Your task to perform on an android device: change text size in settings app Image 0: 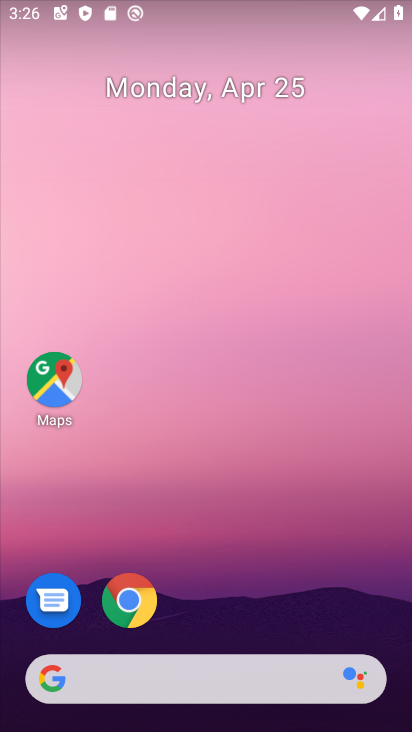
Step 0: drag from (309, 500) to (246, 7)
Your task to perform on an android device: change text size in settings app Image 1: 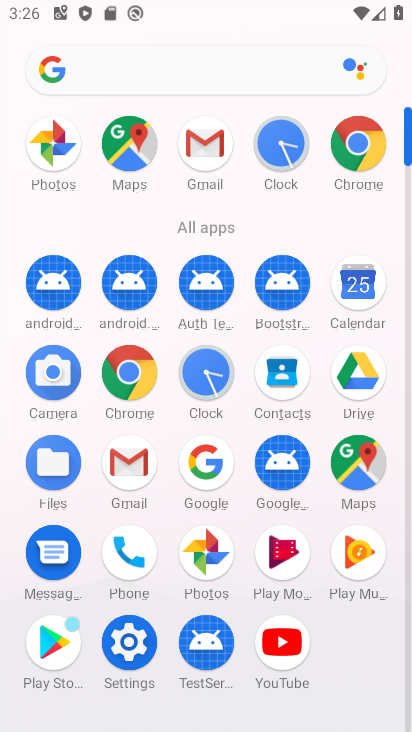
Step 1: click (129, 639)
Your task to perform on an android device: change text size in settings app Image 2: 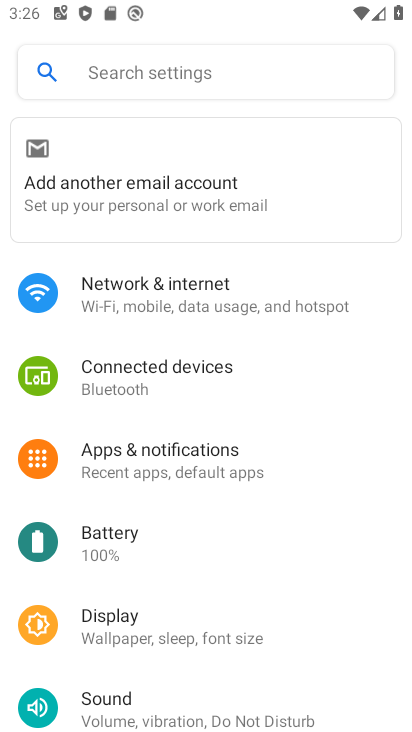
Step 2: drag from (257, 601) to (283, 269)
Your task to perform on an android device: change text size in settings app Image 3: 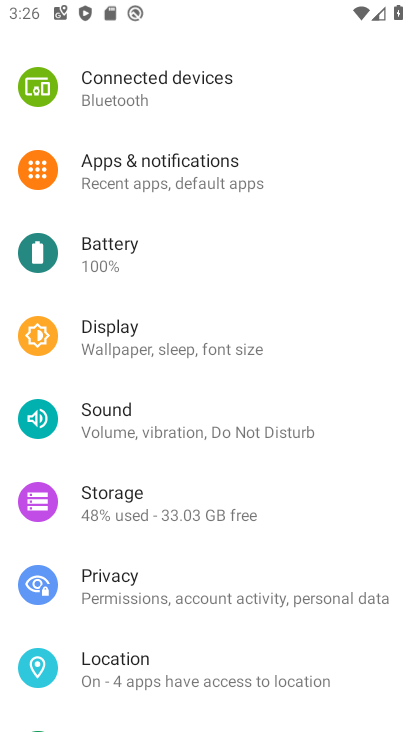
Step 3: click (182, 348)
Your task to perform on an android device: change text size in settings app Image 4: 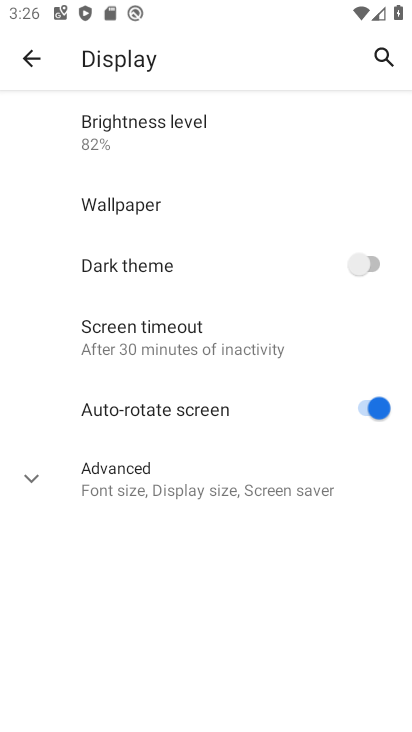
Step 4: click (143, 466)
Your task to perform on an android device: change text size in settings app Image 5: 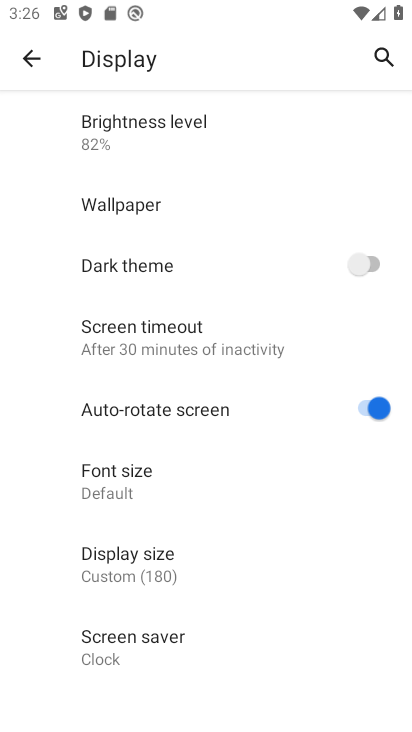
Step 5: drag from (181, 583) to (235, 158)
Your task to perform on an android device: change text size in settings app Image 6: 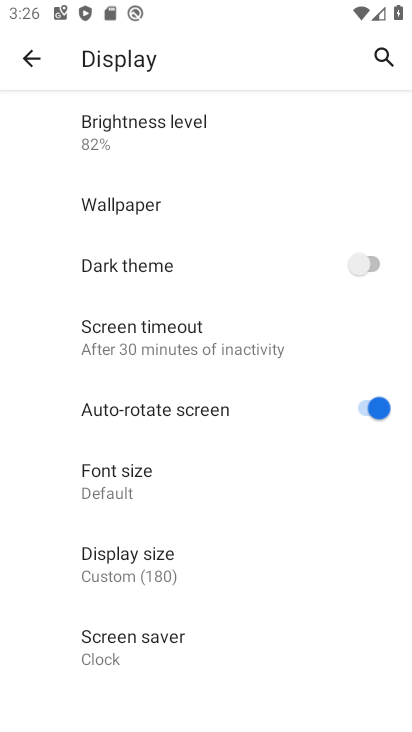
Step 6: click (161, 490)
Your task to perform on an android device: change text size in settings app Image 7: 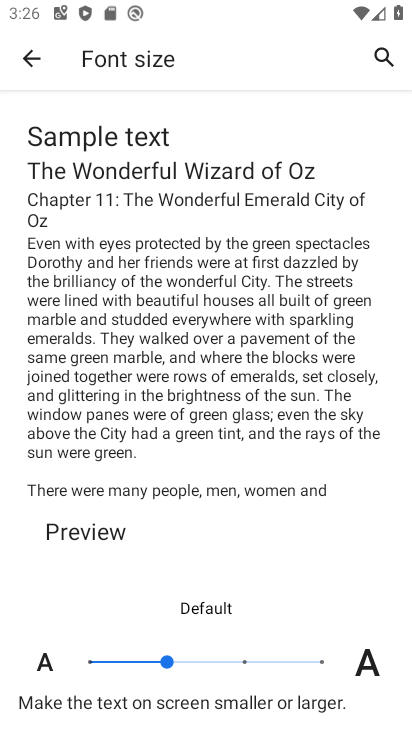
Step 7: click (317, 649)
Your task to perform on an android device: change text size in settings app Image 8: 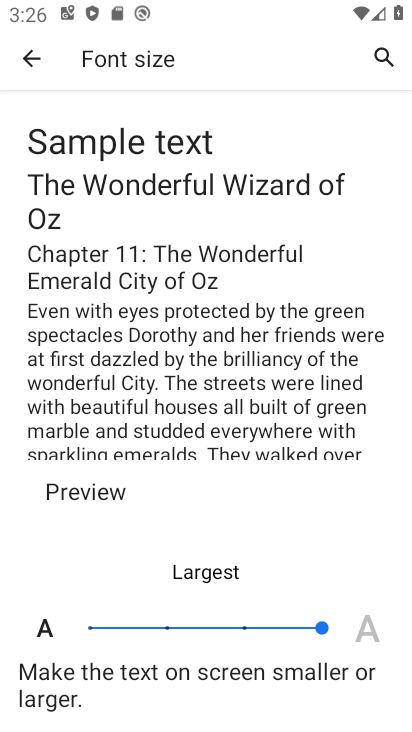
Step 8: task complete